Your task to perform on an android device: Open Android settings Image 0: 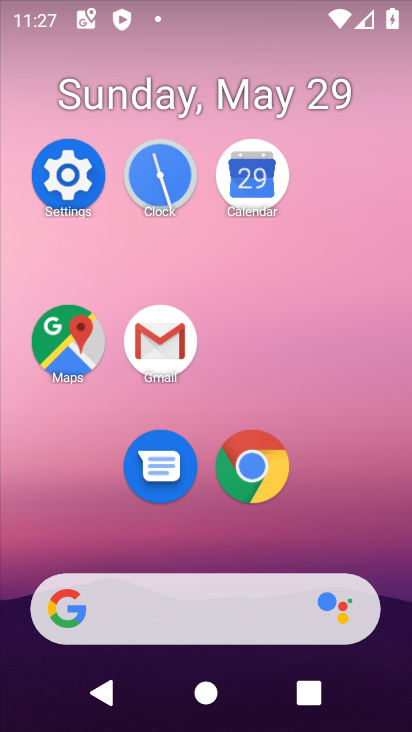
Step 0: click (72, 203)
Your task to perform on an android device: Open Android settings Image 1: 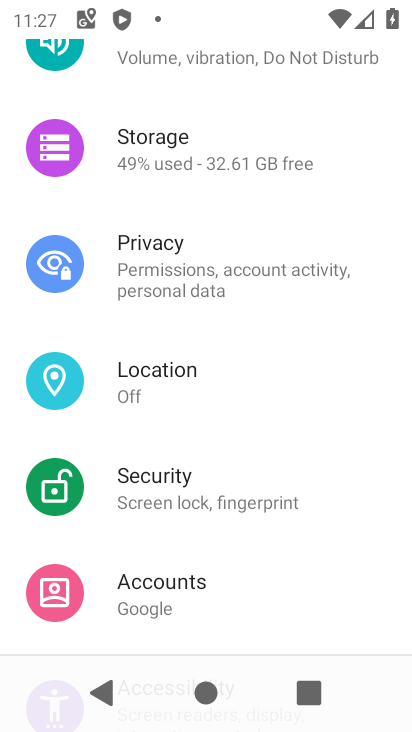
Step 1: task complete